Your task to perform on an android device: turn on sleep mode Image 0: 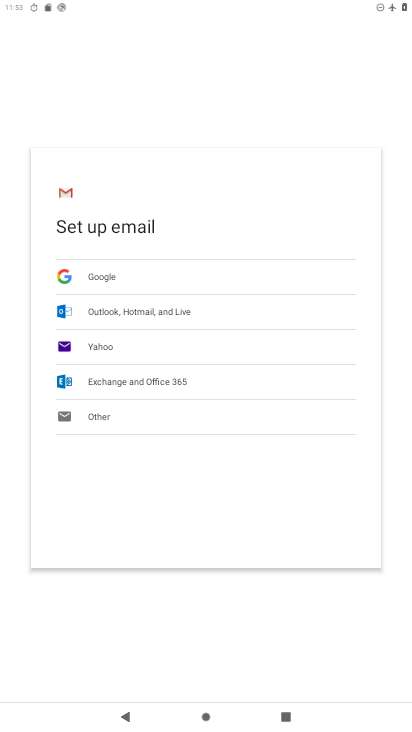
Step 0: press home button
Your task to perform on an android device: turn on sleep mode Image 1: 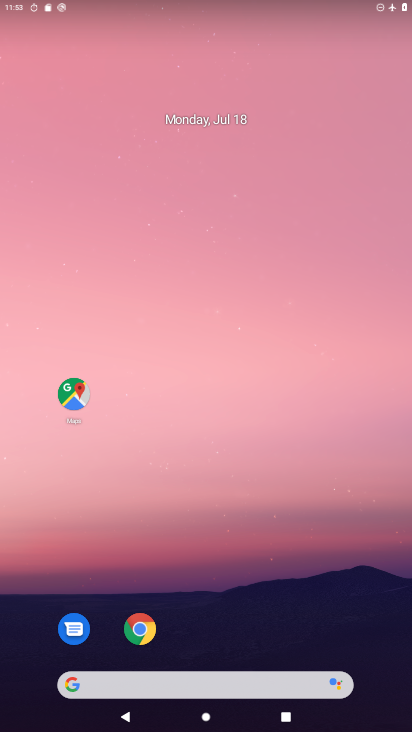
Step 1: drag from (300, 598) to (295, 72)
Your task to perform on an android device: turn on sleep mode Image 2: 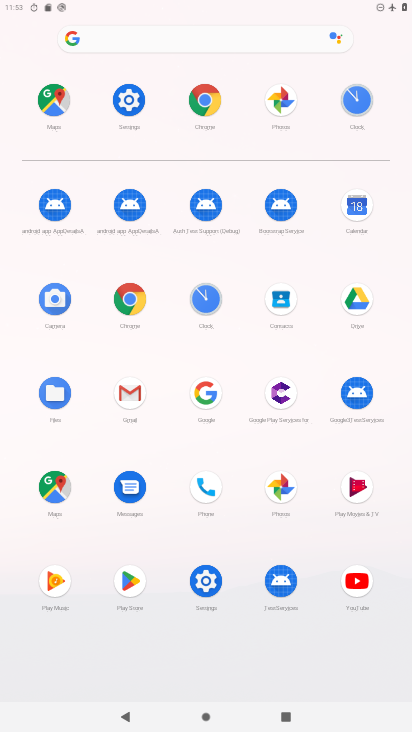
Step 2: click (129, 105)
Your task to perform on an android device: turn on sleep mode Image 3: 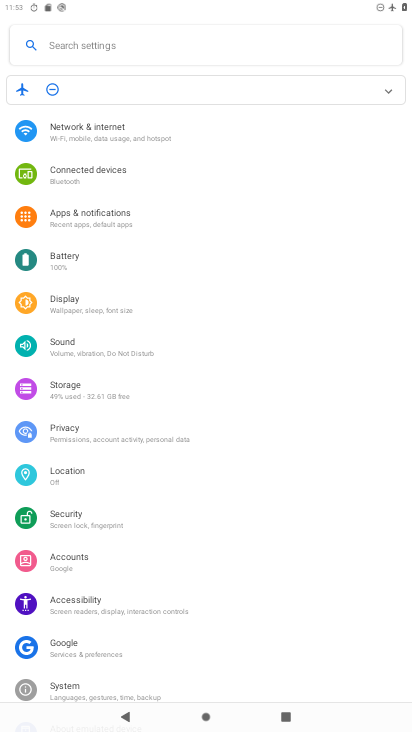
Step 3: click (79, 307)
Your task to perform on an android device: turn on sleep mode Image 4: 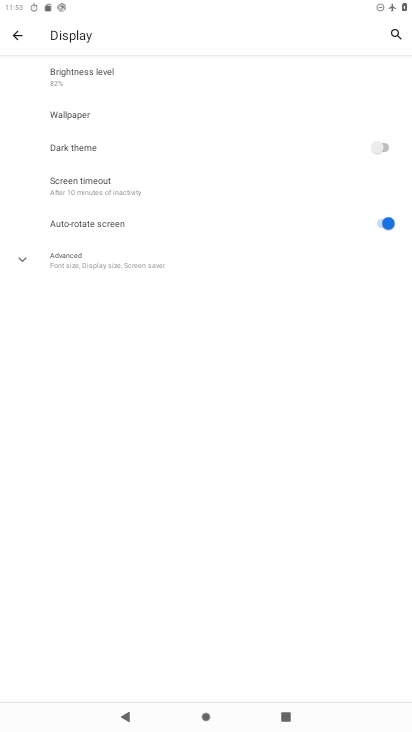
Step 4: click (138, 196)
Your task to perform on an android device: turn on sleep mode Image 5: 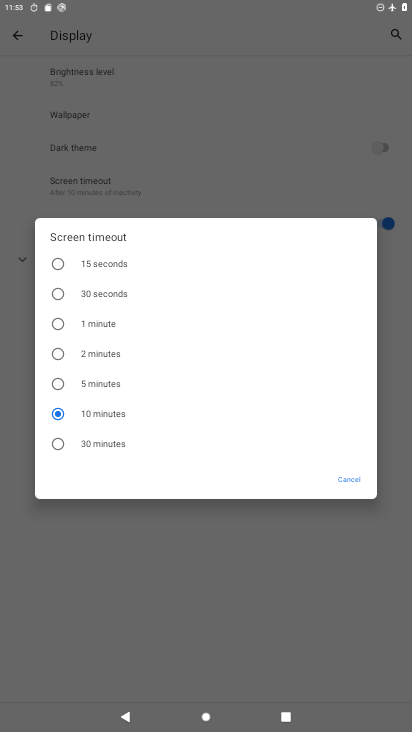
Step 5: task complete